Your task to perform on an android device: Open Google Chrome and click the shortcut for Amazon.com Image 0: 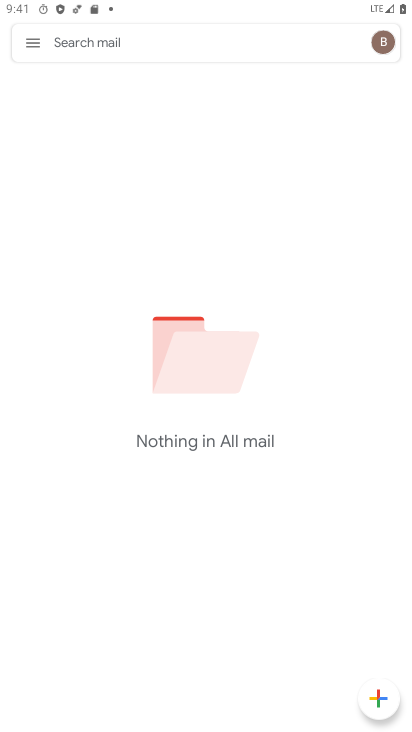
Step 0: press home button
Your task to perform on an android device: Open Google Chrome and click the shortcut for Amazon.com Image 1: 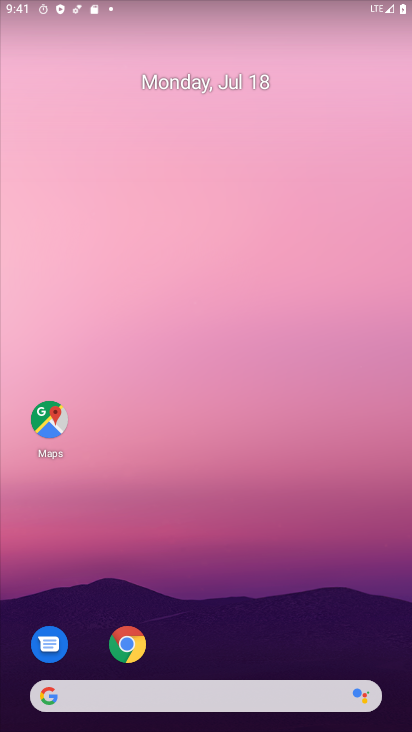
Step 1: click (122, 639)
Your task to perform on an android device: Open Google Chrome and click the shortcut for Amazon.com Image 2: 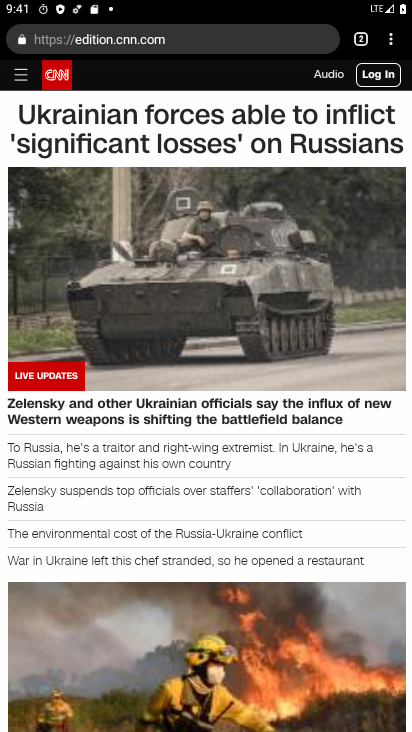
Step 2: click (355, 36)
Your task to perform on an android device: Open Google Chrome and click the shortcut for Amazon.com Image 3: 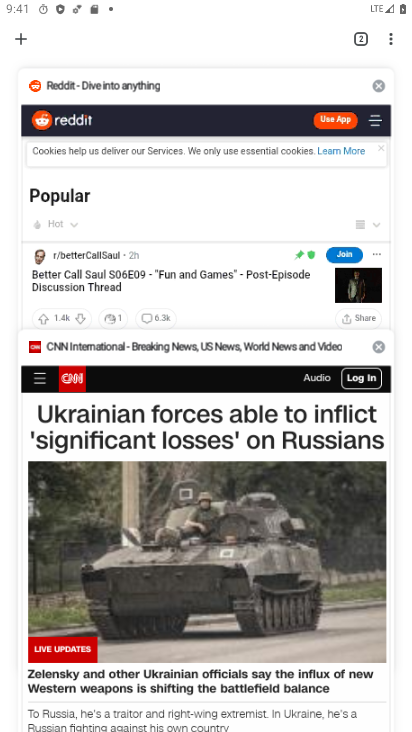
Step 3: click (24, 36)
Your task to perform on an android device: Open Google Chrome and click the shortcut for Amazon.com Image 4: 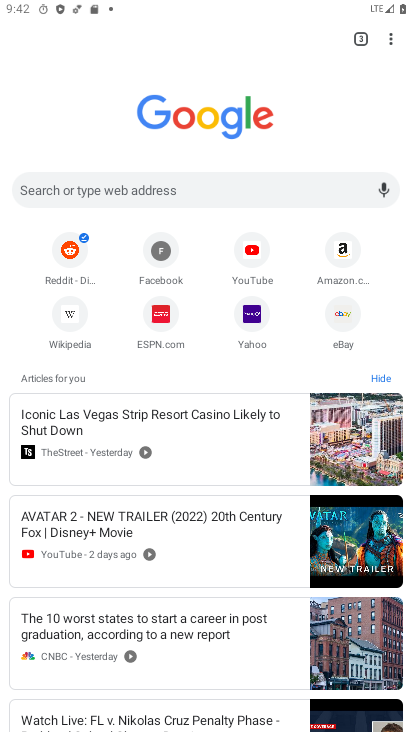
Step 4: click (342, 244)
Your task to perform on an android device: Open Google Chrome and click the shortcut for Amazon.com Image 5: 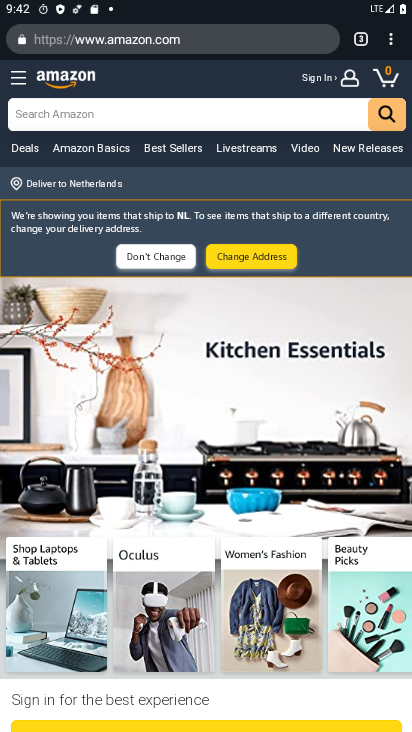
Step 5: task complete